Your task to perform on an android device: add a contact Image 0: 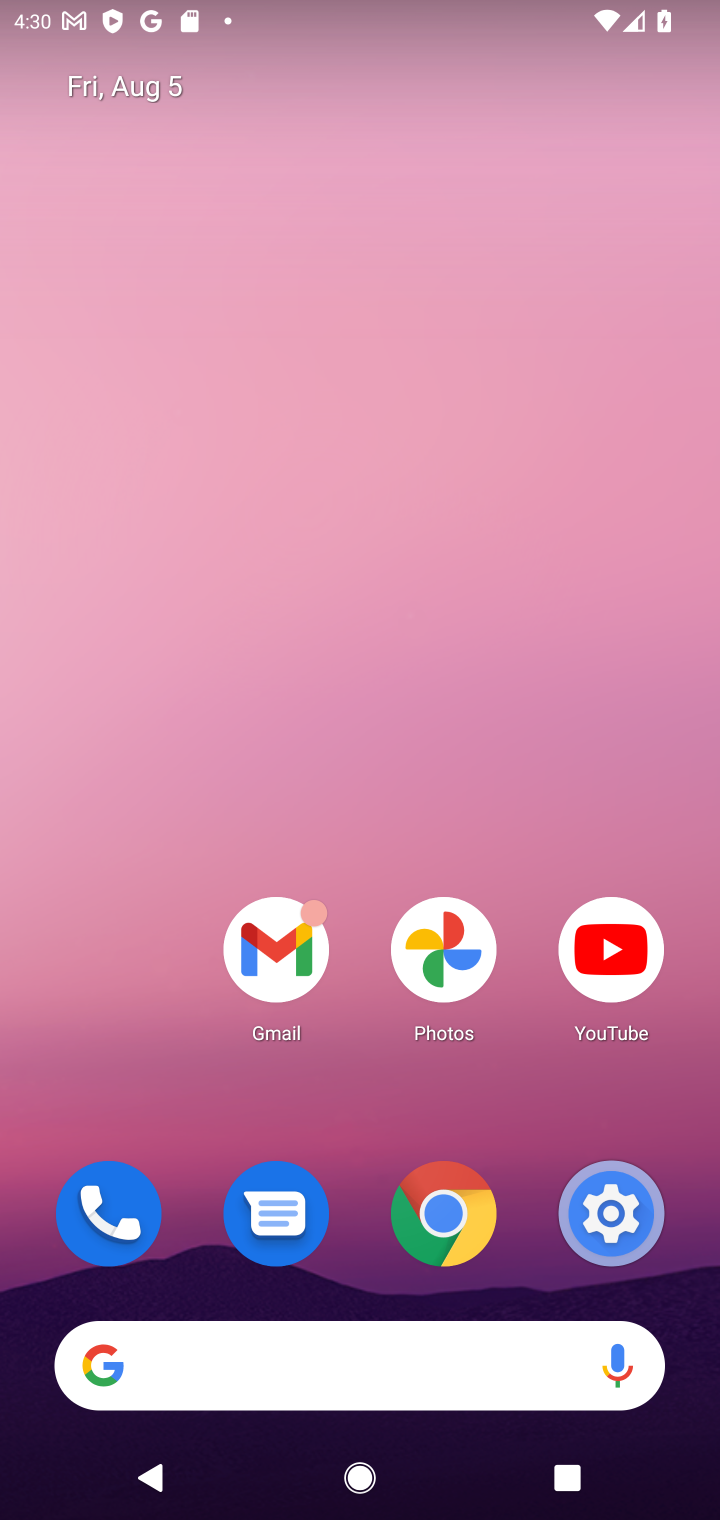
Step 0: drag from (360, 1285) to (288, 180)
Your task to perform on an android device: add a contact Image 1: 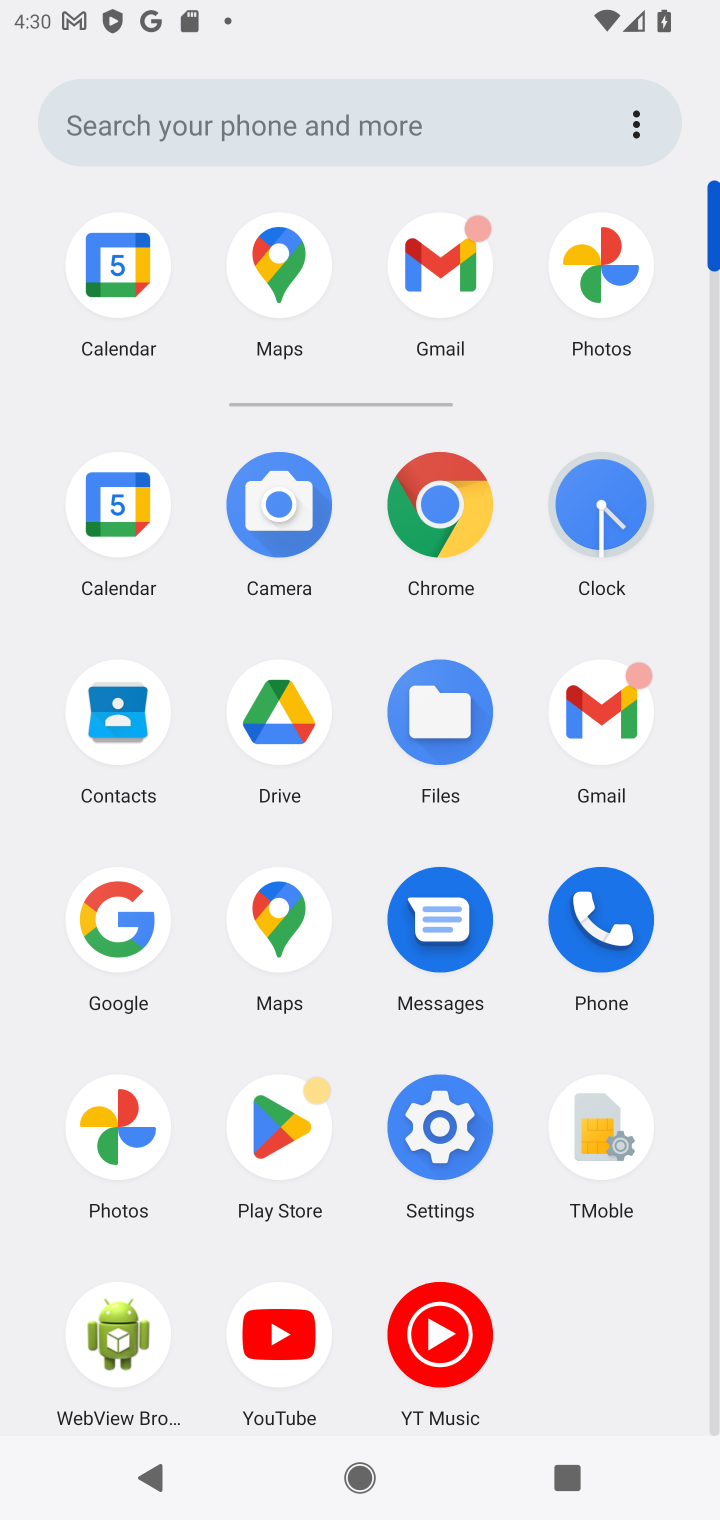
Step 1: click (146, 741)
Your task to perform on an android device: add a contact Image 2: 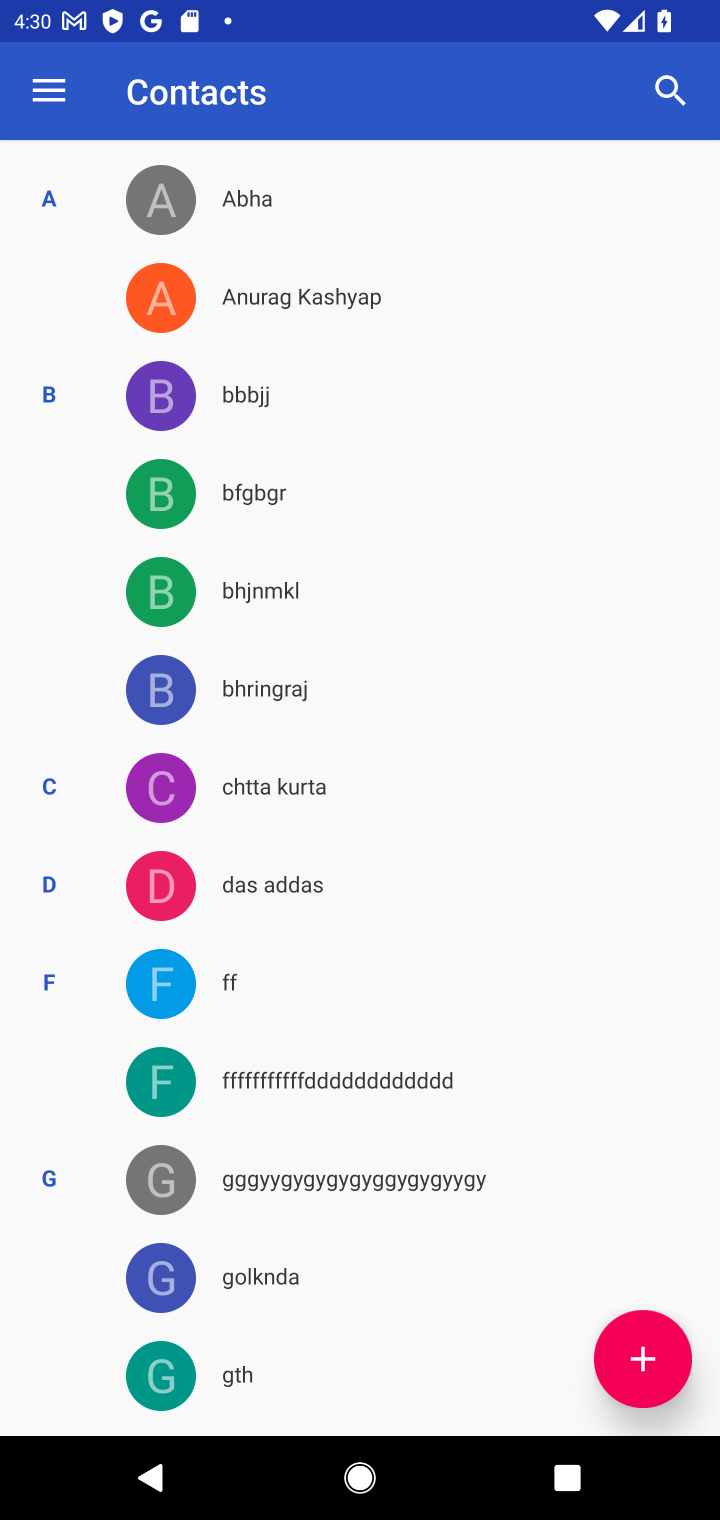
Step 2: click (635, 1351)
Your task to perform on an android device: add a contact Image 3: 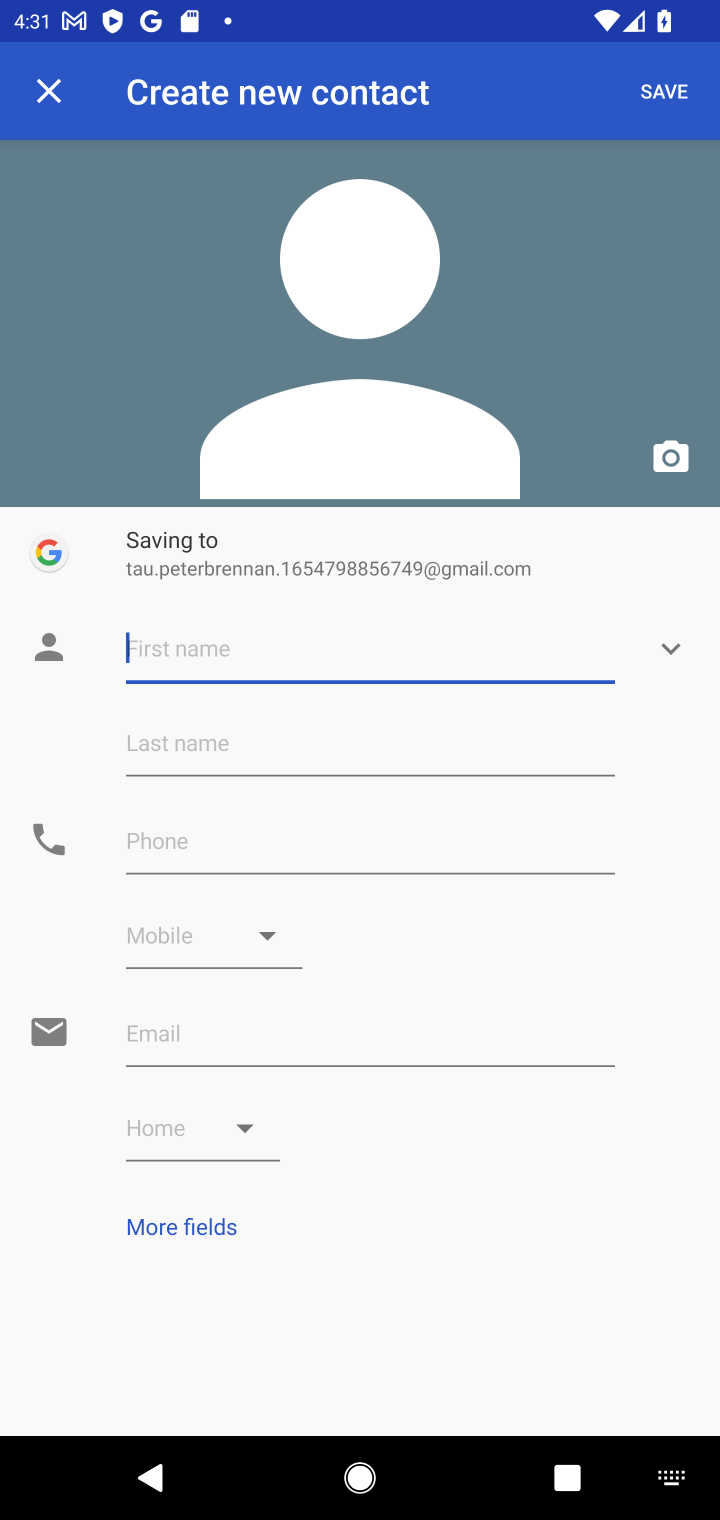
Step 3: type "resgdhg\"
Your task to perform on an android device: add a contact Image 4: 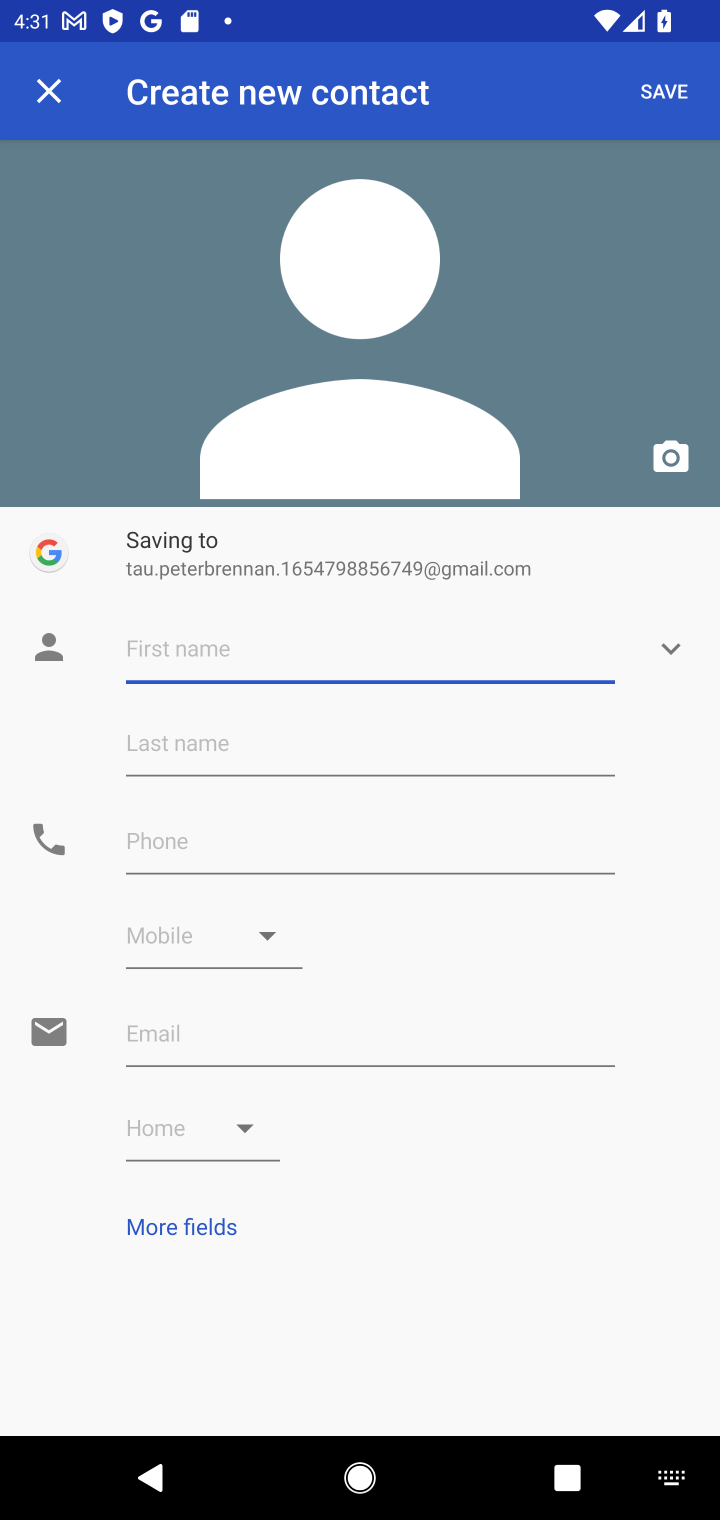
Step 4: click (525, 733)
Your task to perform on an android device: add a contact Image 5: 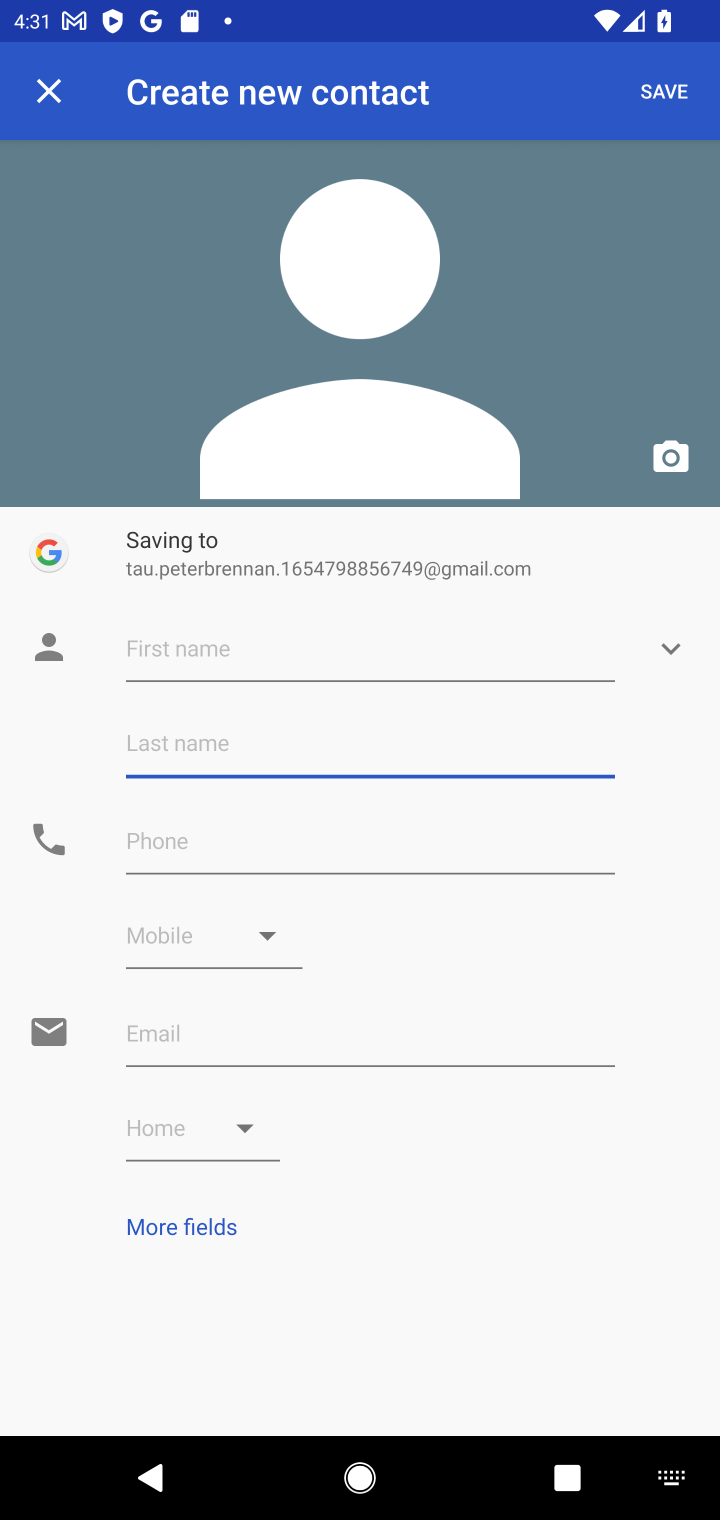
Step 5: type "rdhxfgcxx"
Your task to perform on an android device: add a contact Image 6: 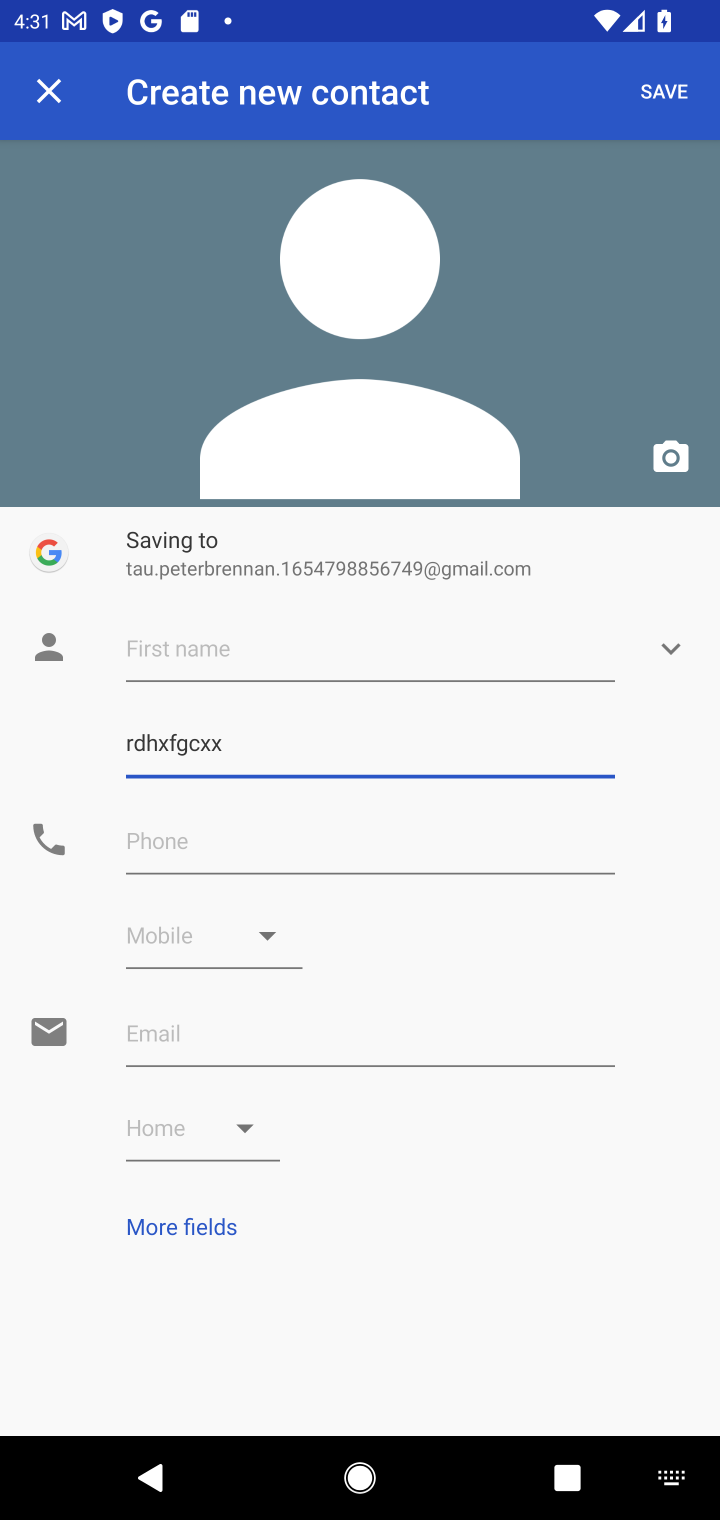
Step 6: click (282, 834)
Your task to perform on an android device: add a contact Image 7: 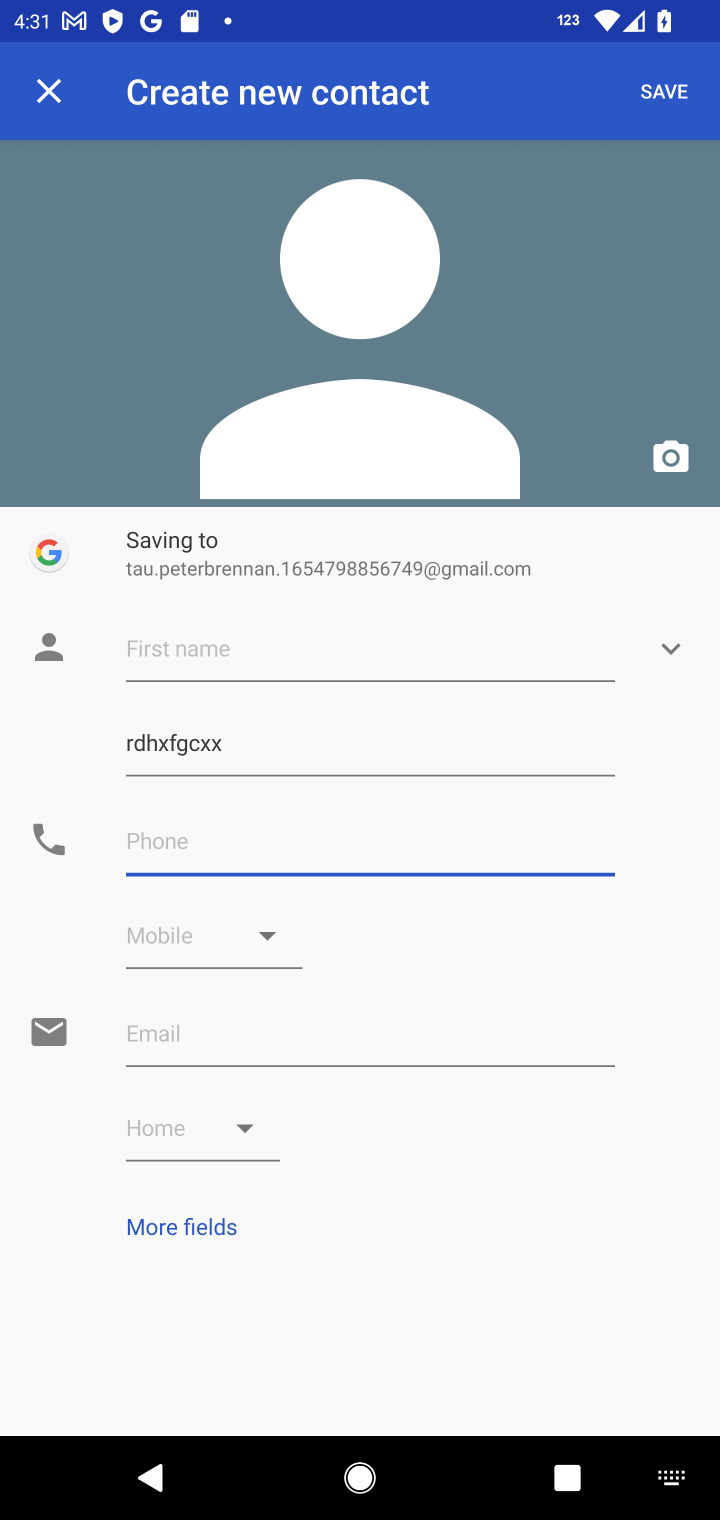
Step 7: type "342567890"
Your task to perform on an android device: add a contact Image 8: 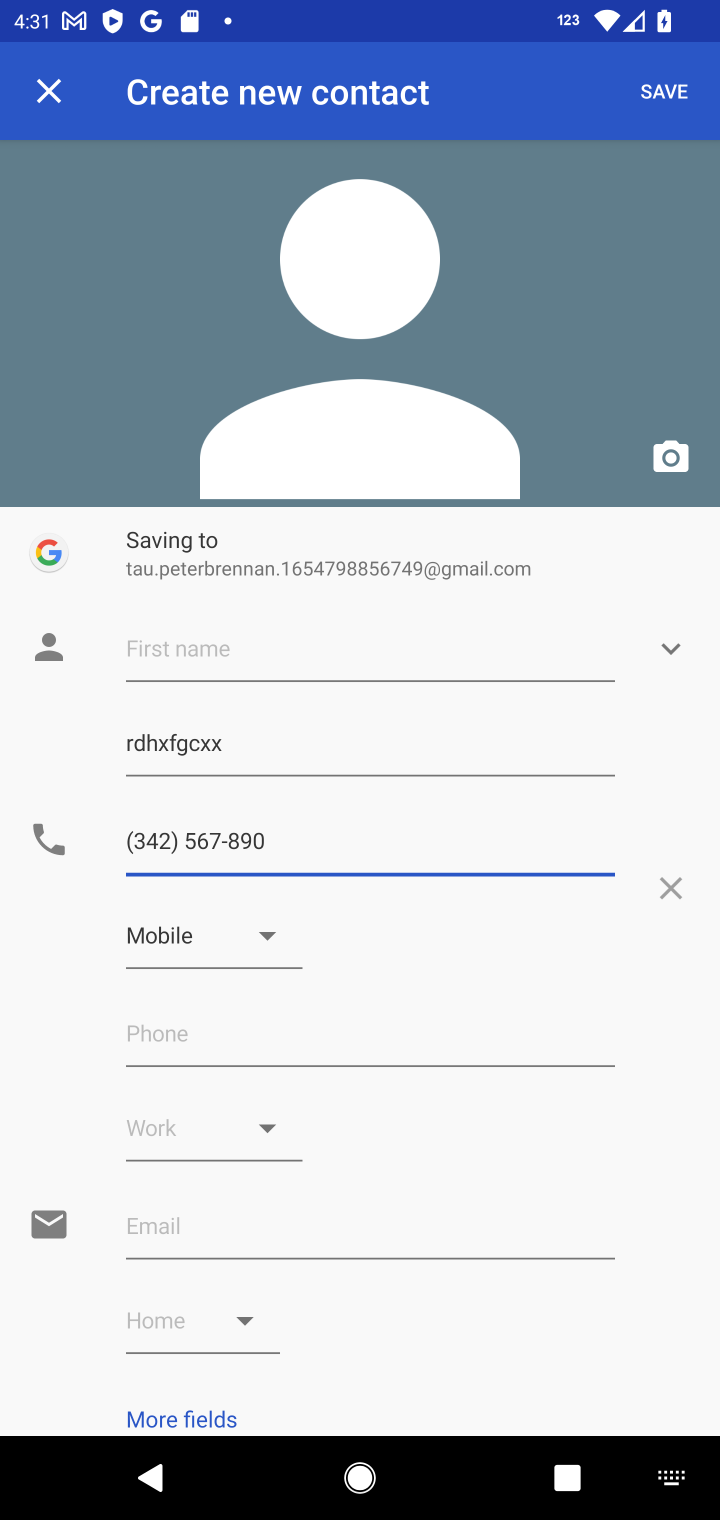
Step 8: click (675, 98)
Your task to perform on an android device: add a contact Image 9: 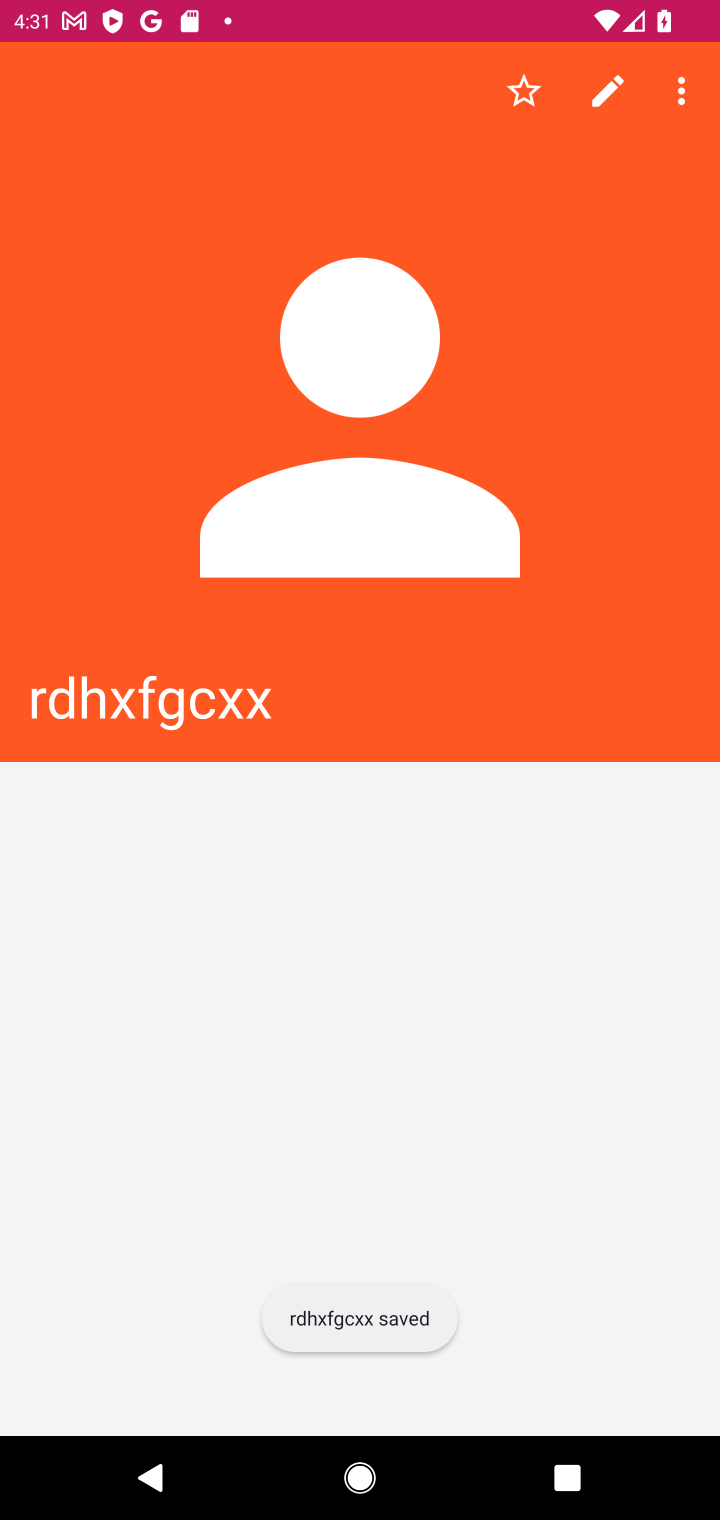
Step 9: task complete